Your task to perform on an android device: Open calendar and show me the second week of next month Image 0: 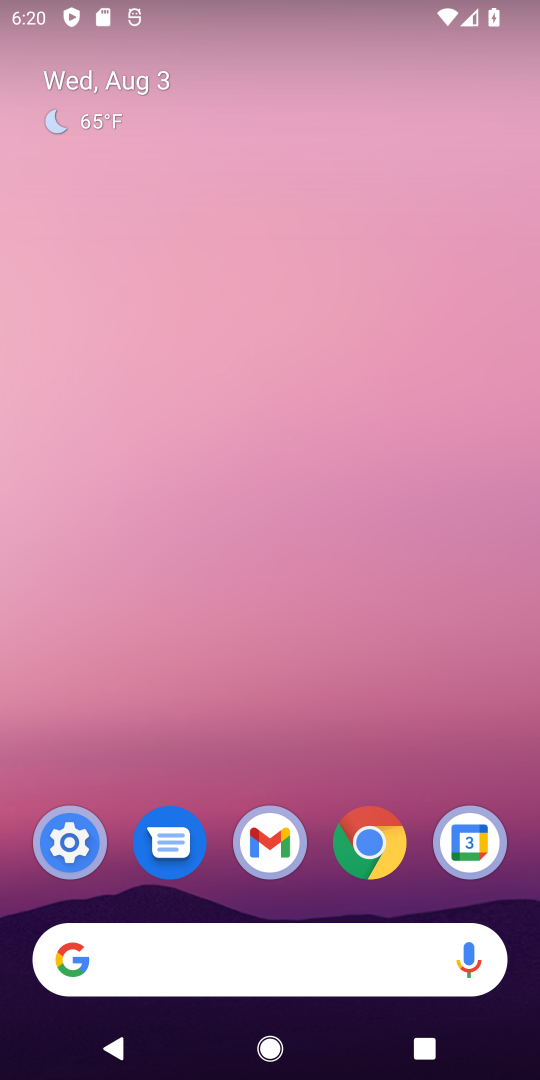
Step 0: drag from (183, 986) to (183, 57)
Your task to perform on an android device: Open calendar and show me the second week of next month Image 1: 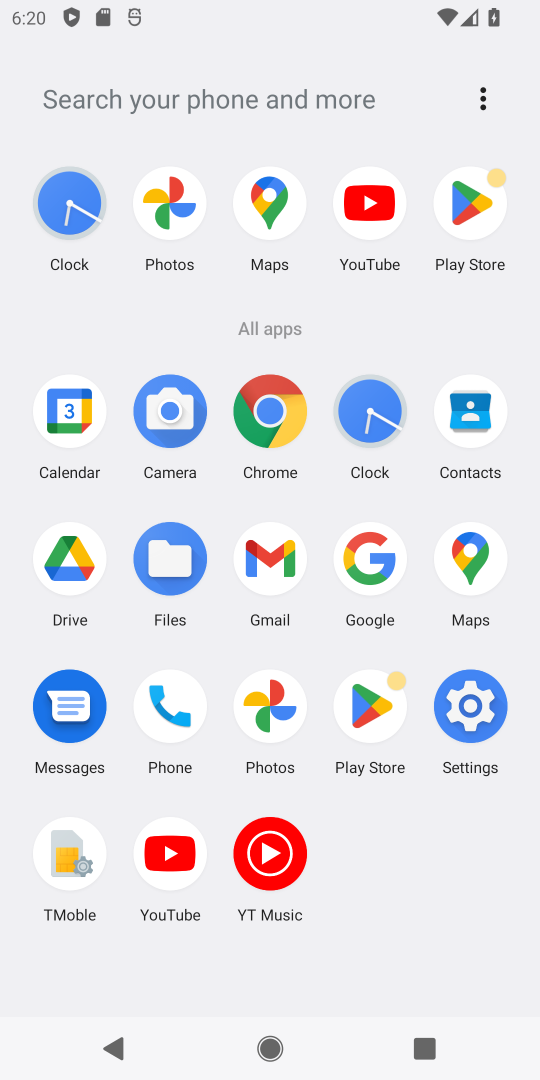
Step 1: click (61, 417)
Your task to perform on an android device: Open calendar and show me the second week of next month Image 2: 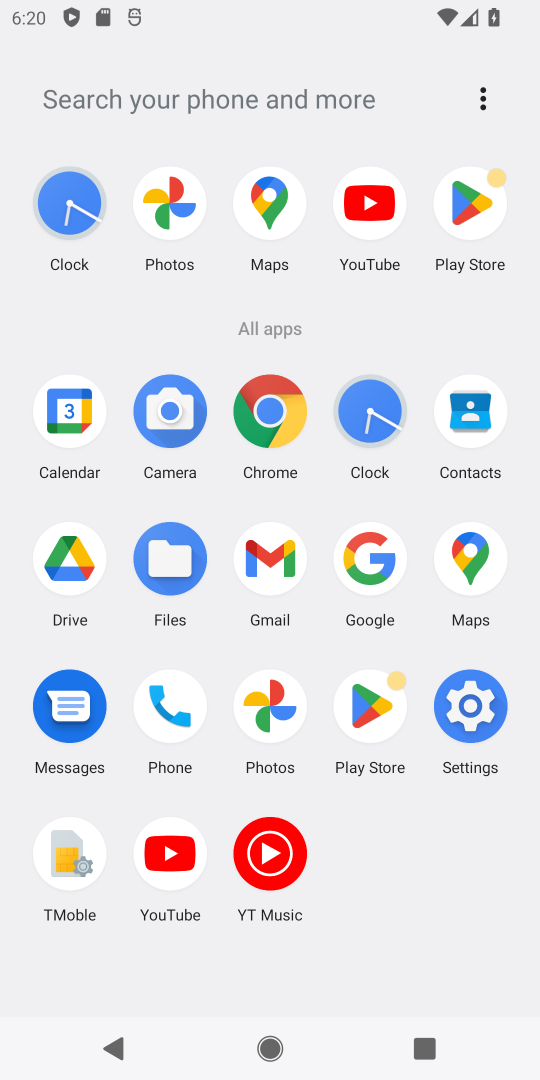
Step 2: click (61, 417)
Your task to perform on an android device: Open calendar and show me the second week of next month Image 3: 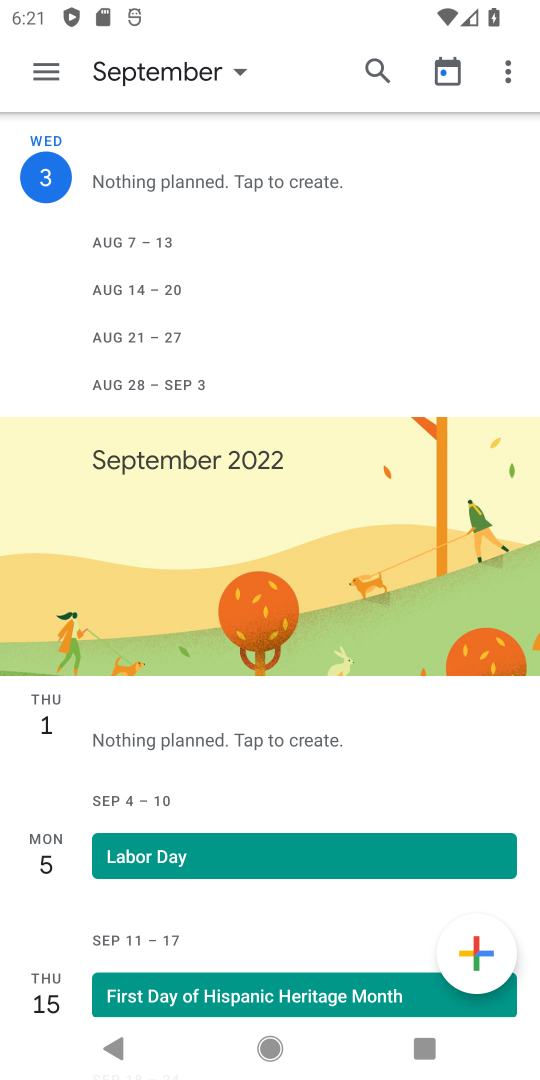
Step 3: click (163, 66)
Your task to perform on an android device: Open calendar and show me the second week of next month Image 4: 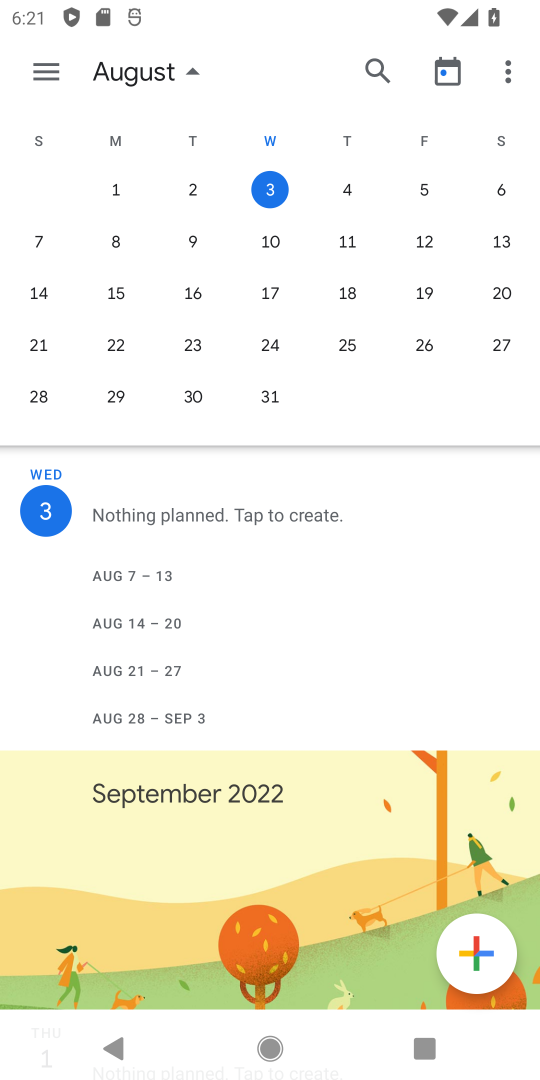
Step 4: drag from (453, 344) to (87, 235)
Your task to perform on an android device: Open calendar and show me the second week of next month Image 5: 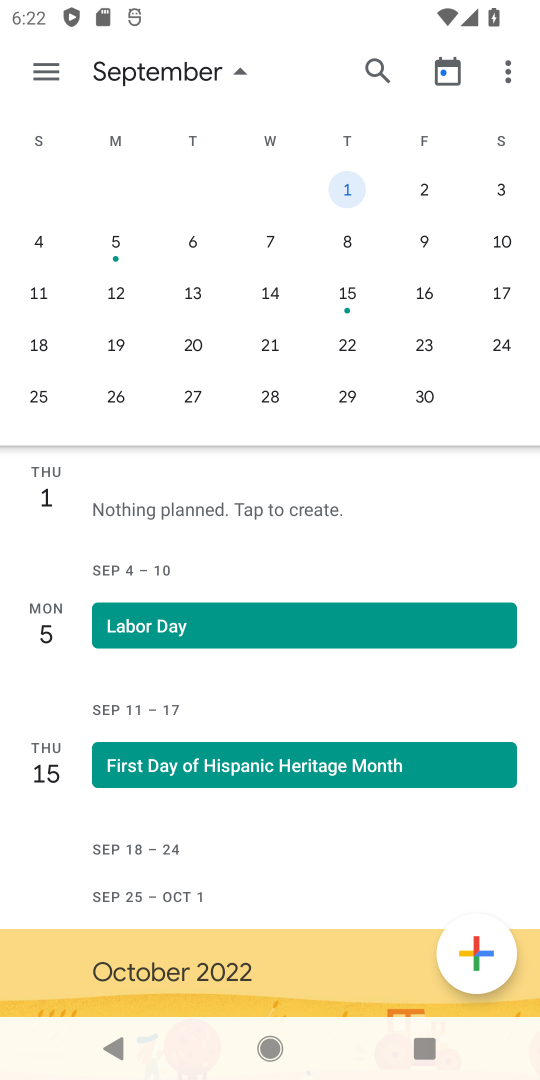
Step 5: click (45, 253)
Your task to perform on an android device: Open calendar and show me the second week of next month Image 6: 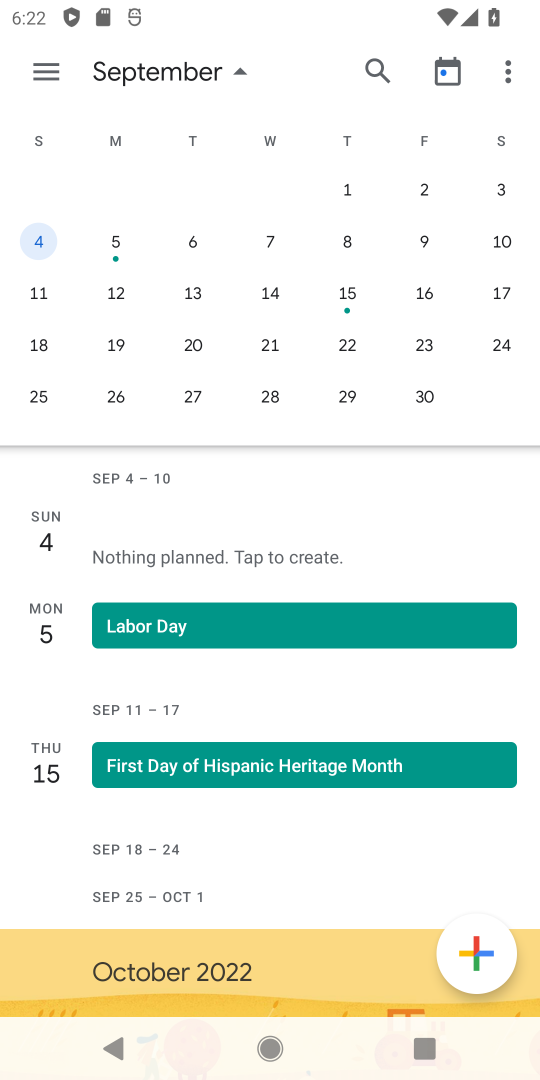
Step 6: task complete